Your task to perform on an android device: check battery use Image 0: 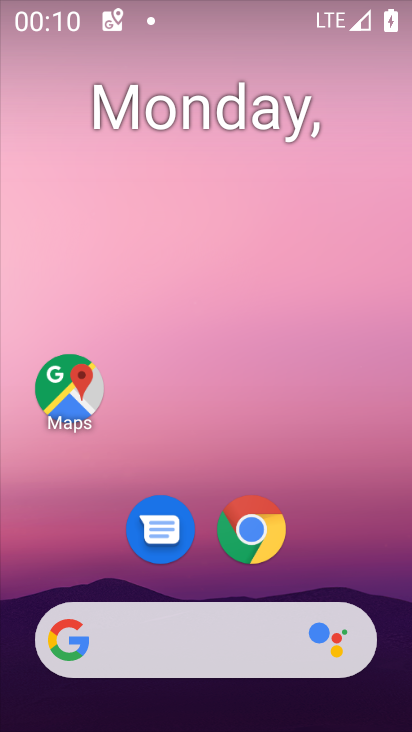
Step 0: drag from (347, 559) to (239, 20)
Your task to perform on an android device: check battery use Image 1: 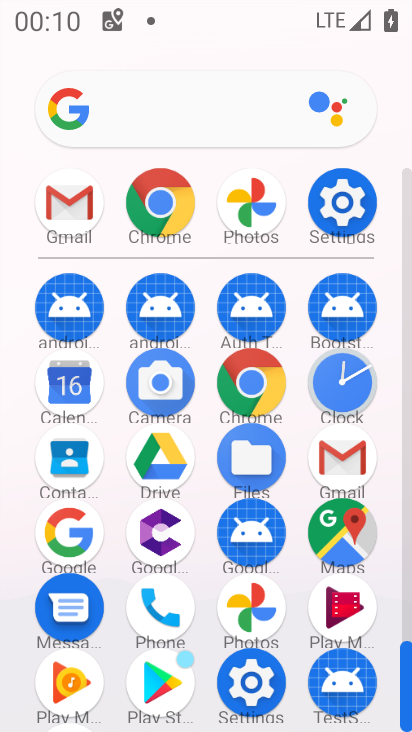
Step 1: click (343, 201)
Your task to perform on an android device: check battery use Image 2: 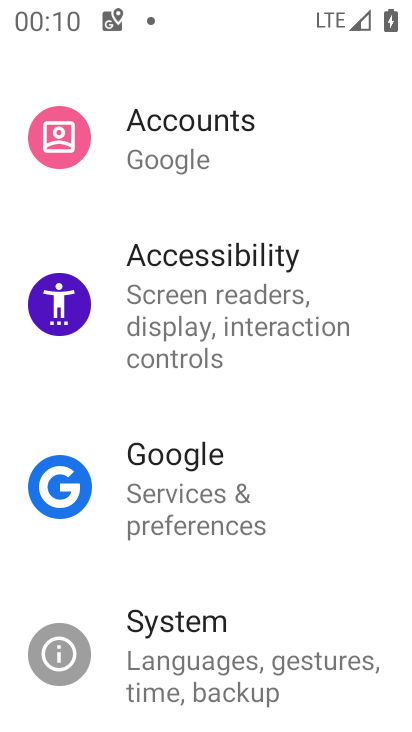
Step 2: drag from (310, 239) to (288, 362)
Your task to perform on an android device: check battery use Image 3: 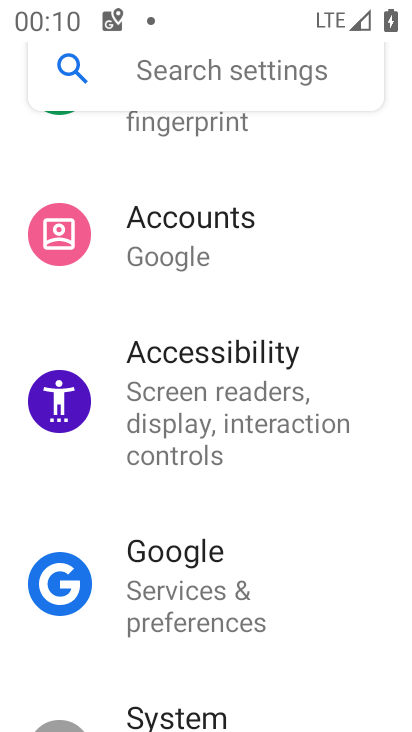
Step 3: drag from (275, 225) to (302, 388)
Your task to perform on an android device: check battery use Image 4: 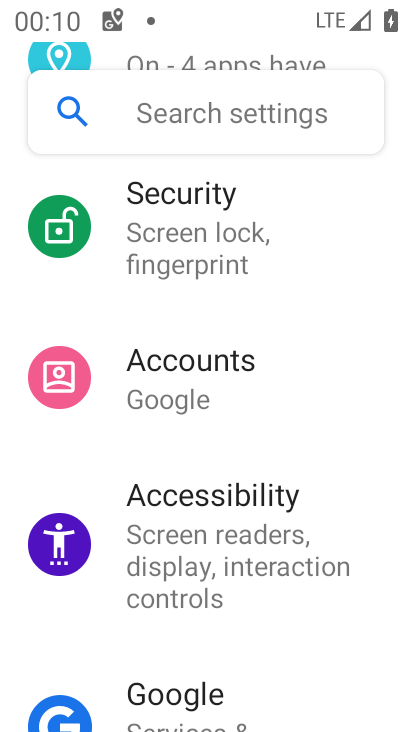
Step 4: drag from (285, 286) to (321, 454)
Your task to perform on an android device: check battery use Image 5: 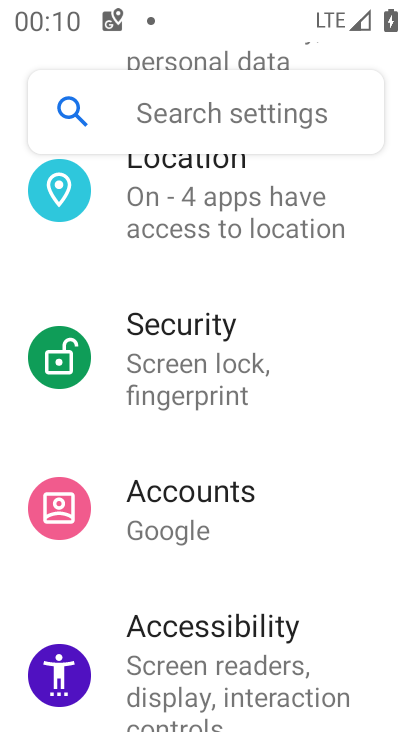
Step 5: drag from (292, 312) to (281, 446)
Your task to perform on an android device: check battery use Image 6: 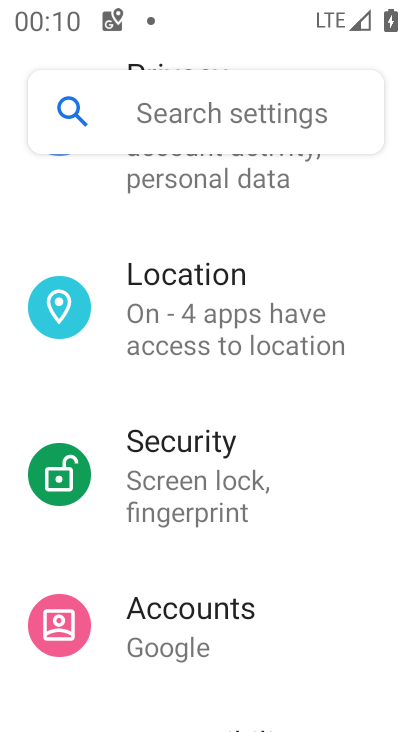
Step 6: drag from (290, 277) to (273, 489)
Your task to perform on an android device: check battery use Image 7: 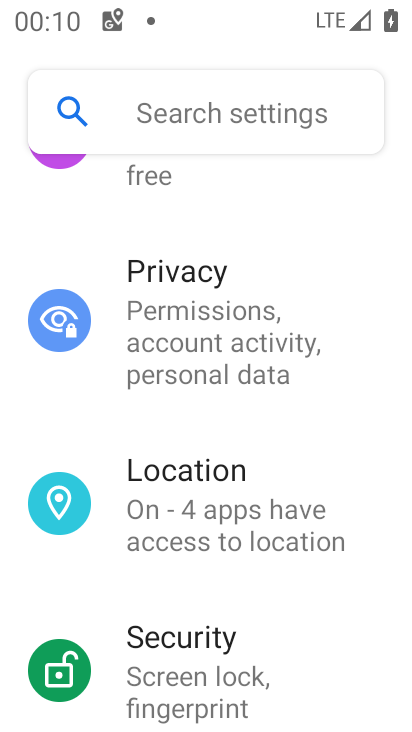
Step 7: drag from (274, 257) to (327, 398)
Your task to perform on an android device: check battery use Image 8: 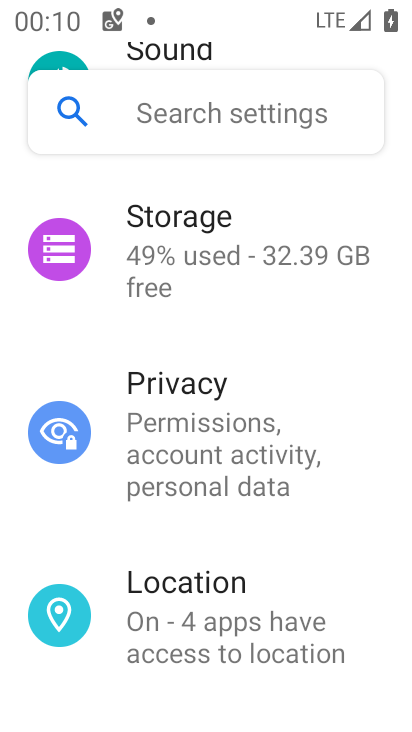
Step 8: drag from (268, 237) to (281, 431)
Your task to perform on an android device: check battery use Image 9: 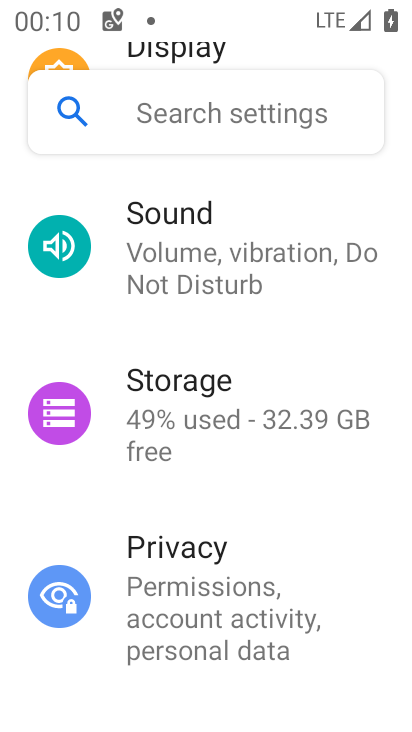
Step 9: drag from (246, 225) to (271, 376)
Your task to perform on an android device: check battery use Image 10: 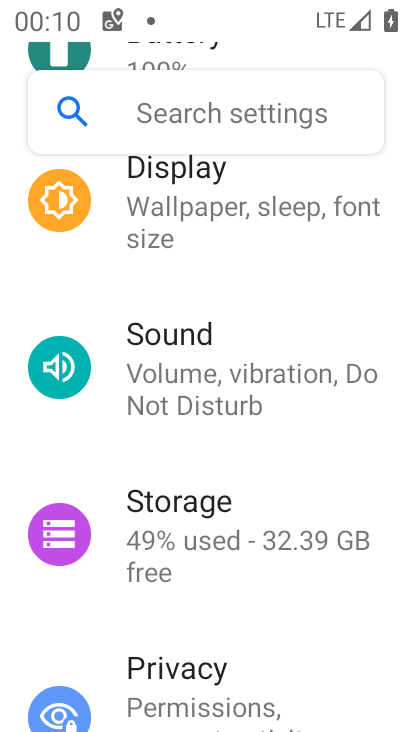
Step 10: drag from (266, 240) to (277, 381)
Your task to perform on an android device: check battery use Image 11: 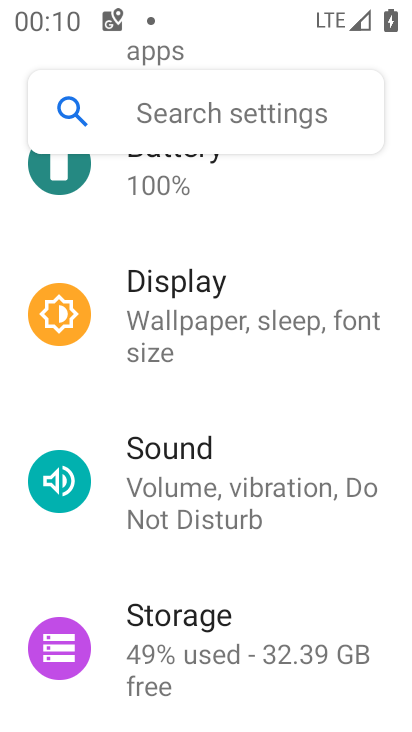
Step 11: drag from (268, 258) to (282, 368)
Your task to perform on an android device: check battery use Image 12: 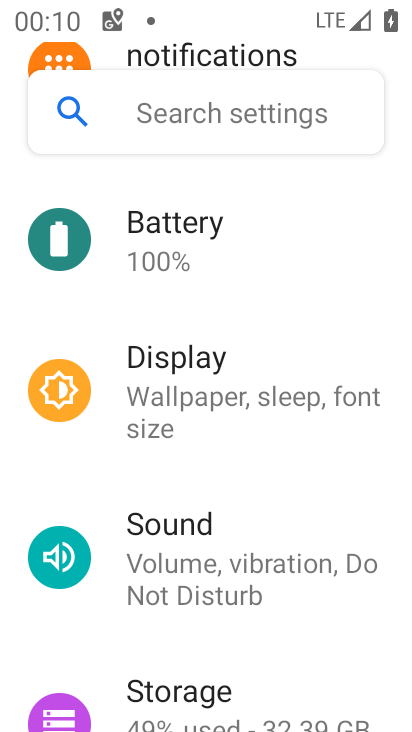
Step 12: click (211, 229)
Your task to perform on an android device: check battery use Image 13: 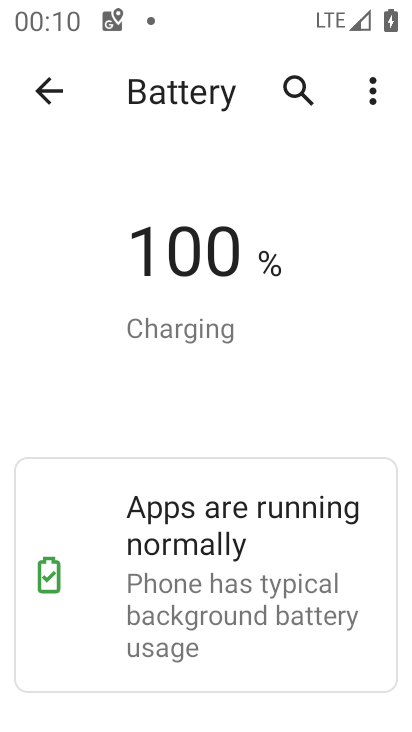
Step 13: click (371, 80)
Your task to perform on an android device: check battery use Image 14: 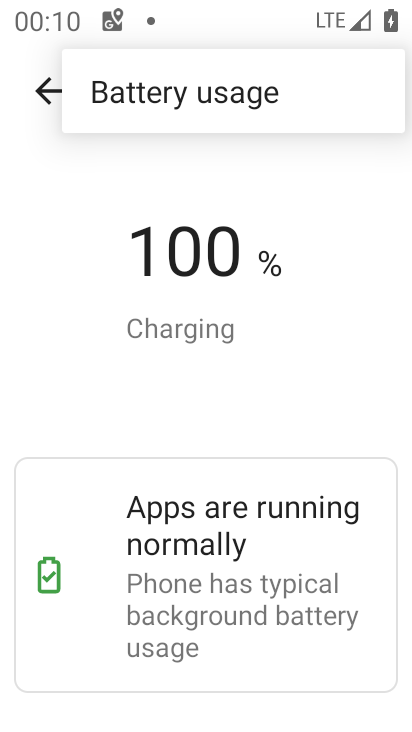
Step 14: click (245, 104)
Your task to perform on an android device: check battery use Image 15: 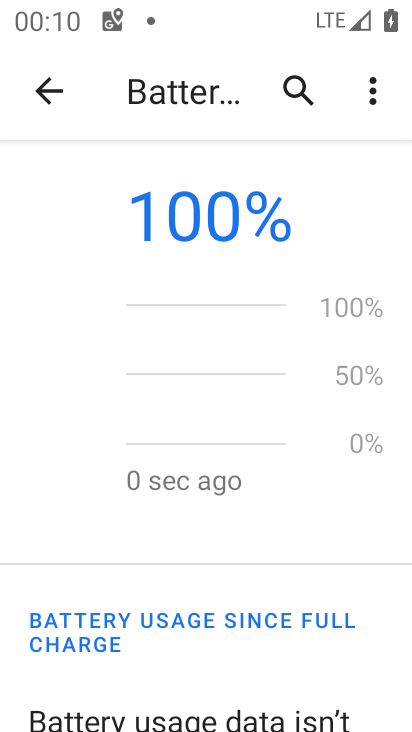
Step 15: task complete